Your task to perform on an android device: Go to calendar. Show me events next week Image 0: 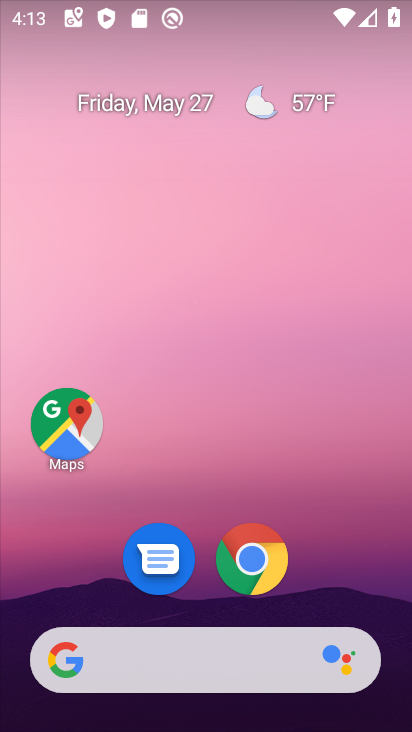
Step 0: drag from (388, 603) to (263, 108)
Your task to perform on an android device: Go to calendar. Show me events next week Image 1: 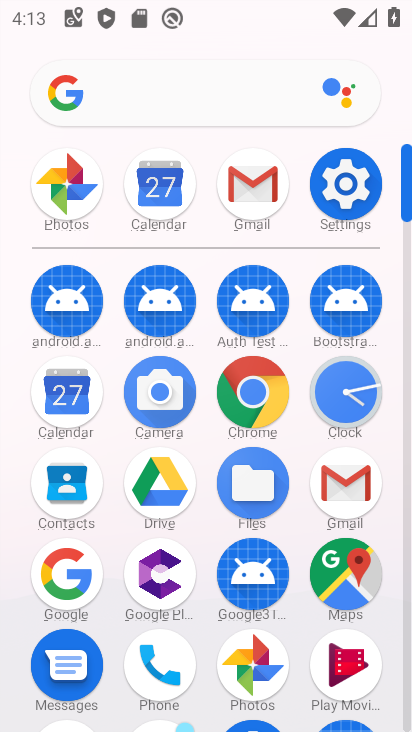
Step 1: click (348, 202)
Your task to perform on an android device: Go to calendar. Show me events next week Image 2: 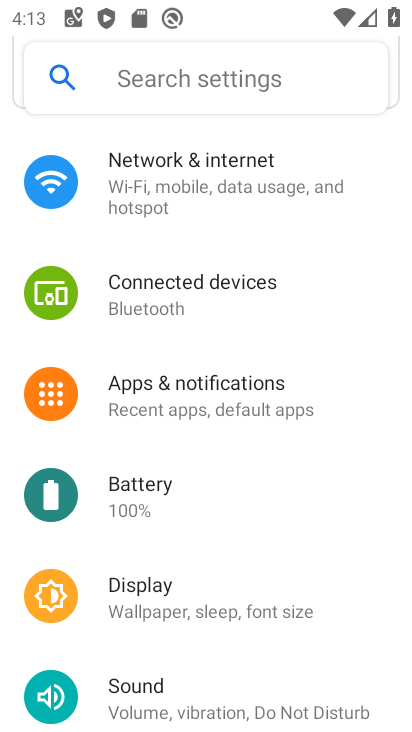
Step 2: task complete